Your task to perform on an android device: Search for sushi restaurants on Maps Image 0: 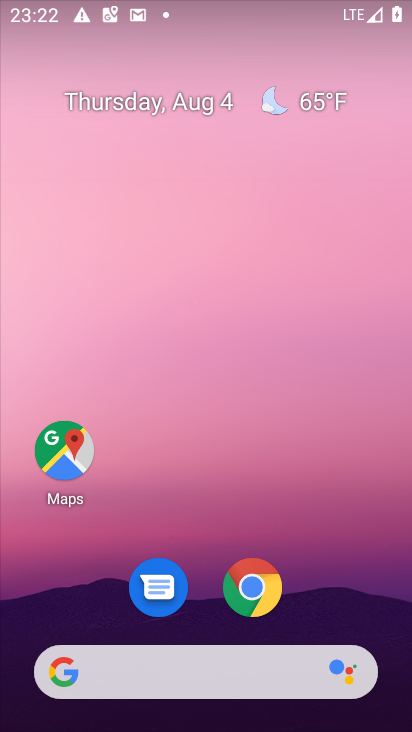
Step 0: drag from (181, 605) to (166, 317)
Your task to perform on an android device: Search for sushi restaurants on Maps Image 1: 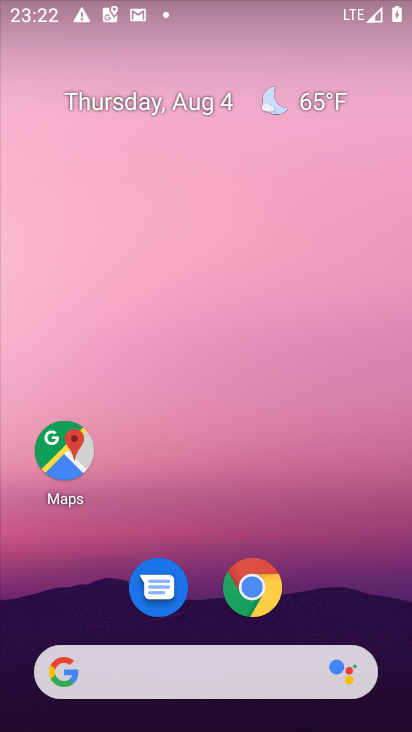
Step 1: click (64, 455)
Your task to perform on an android device: Search for sushi restaurants on Maps Image 2: 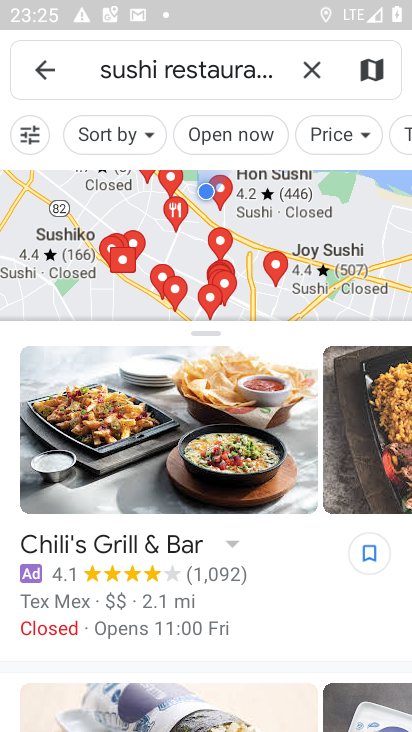
Step 2: task complete